Your task to perform on an android device: turn notification dots off Image 0: 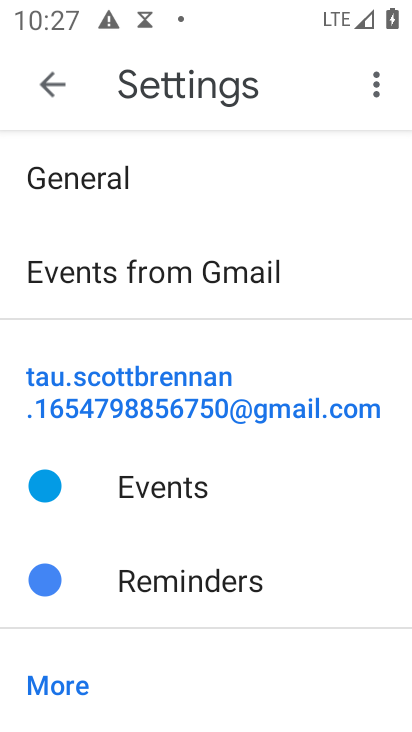
Step 0: press home button
Your task to perform on an android device: turn notification dots off Image 1: 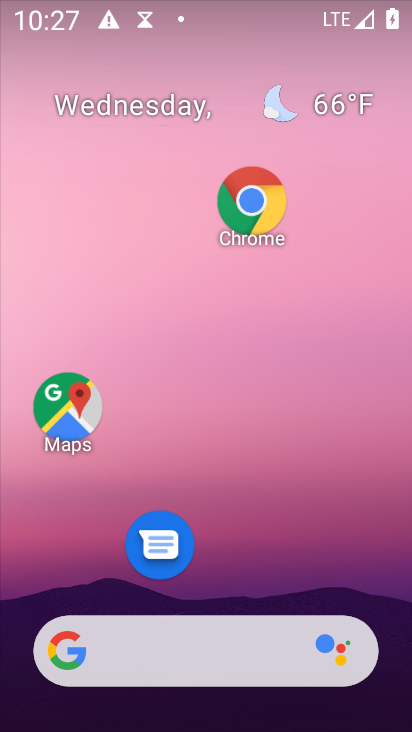
Step 1: drag from (262, 556) to (206, 241)
Your task to perform on an android device: turn notification dots off Image 2: 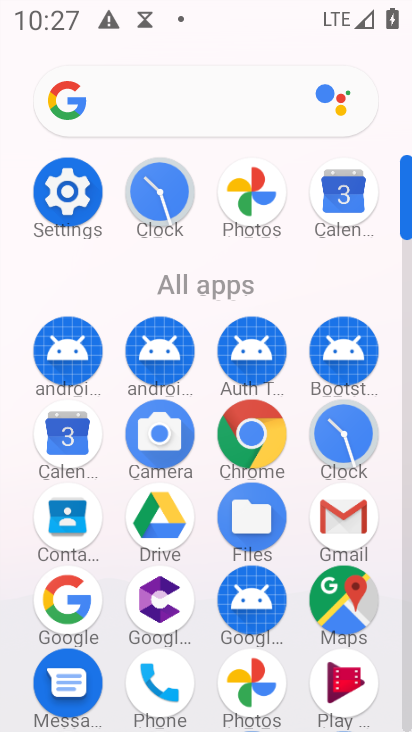
Step 2: click (77, 217)
Your task to perform on an android device: turn notification dots off Image 3: 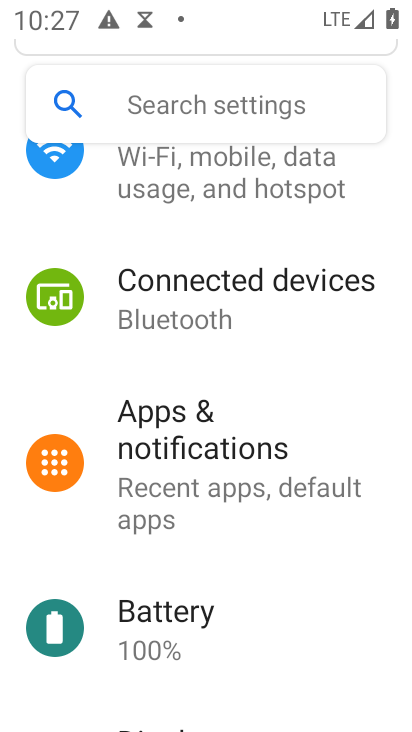
Step 3: click (213, 426)
Your task to perform on an android device: turn notification dots off Image 4: 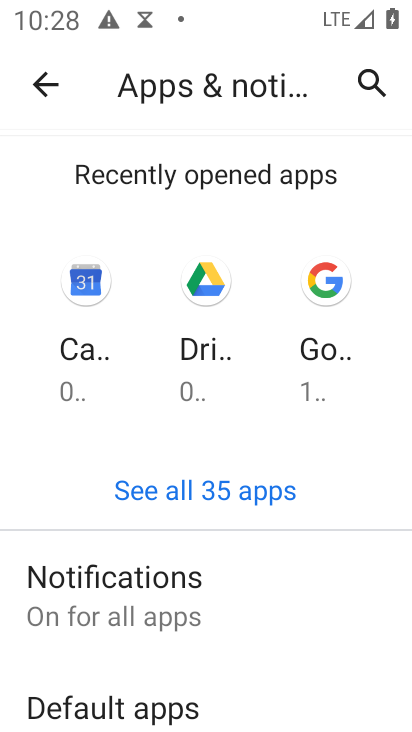
Step 4: click (220, 608)
Your task to perform on an android device: turn notification dots off Image 5: 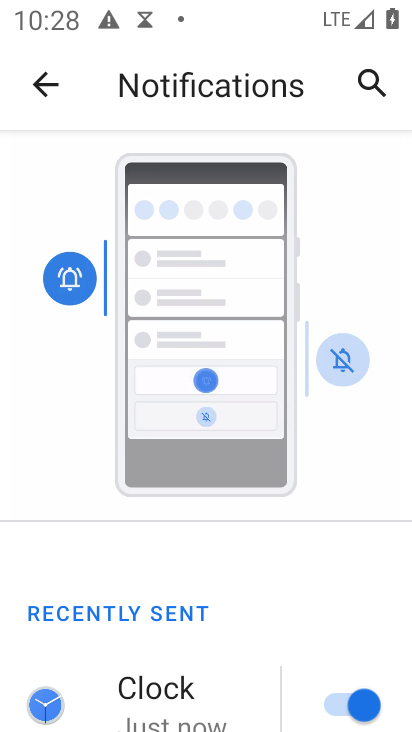
Step 5: drag from (211, 664) to (211, 331)
Your task to perform on an android device: turn notification dots off Image 6: 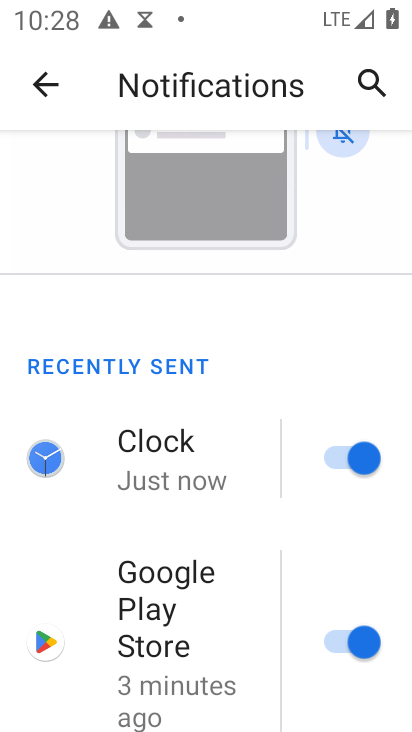
Step 6: drag from (207, 668) to (207, 369)
Your task to perform on an android device: turn notification dots off Image 7: 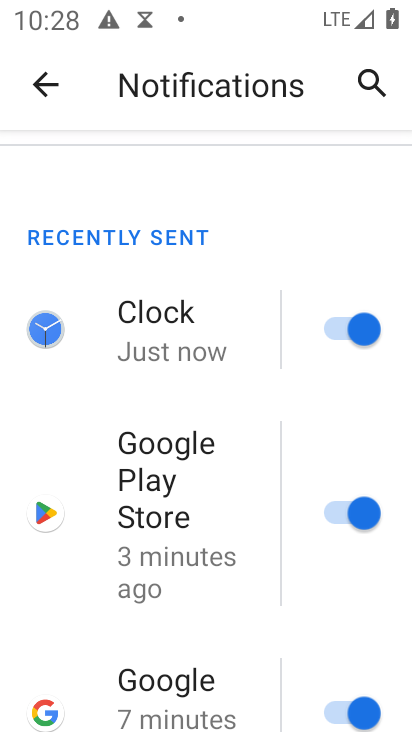
Step 7: drag from (181, 627) to (181, 231)
Your task to perform on an android device: turn notification dots off Image 8: 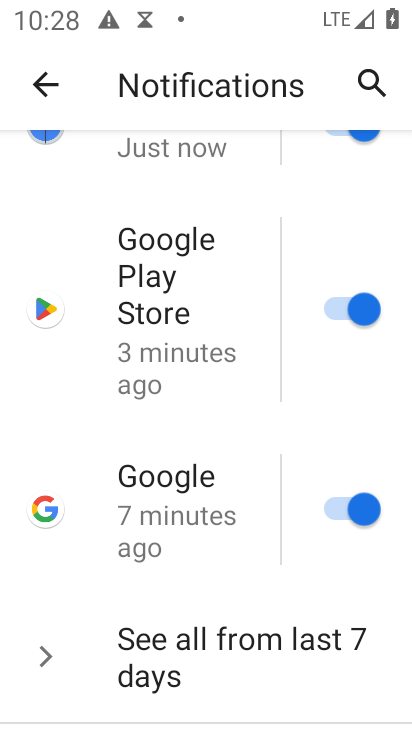
Step 8: drag from (147, 656) to (147, 359)
Your task to perform on an android device: turn notification dots off Image 9: 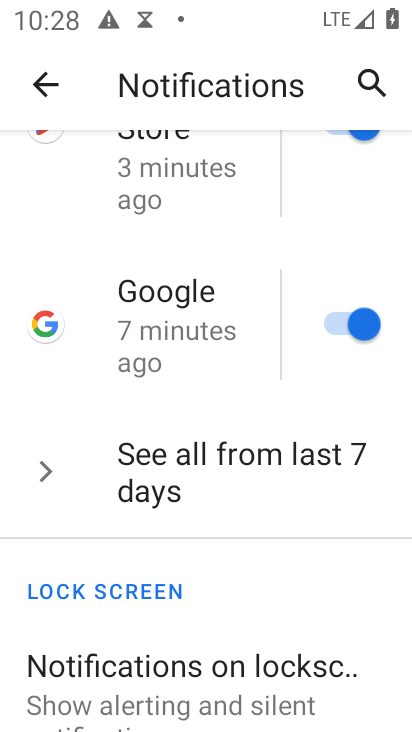
Step 9: drag from (143, 583) to (143, 147)
Your task to perform on an android device: turn notification dots off Image 10: 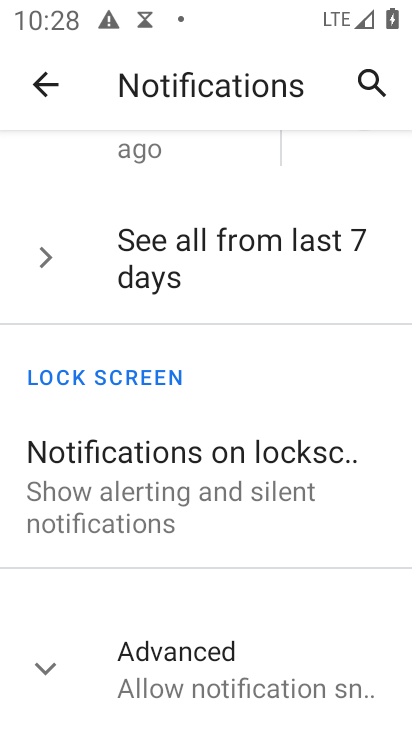
Step 10: click (221, 677)
Your task to perform on an android device: turn notification dots off Image 11: 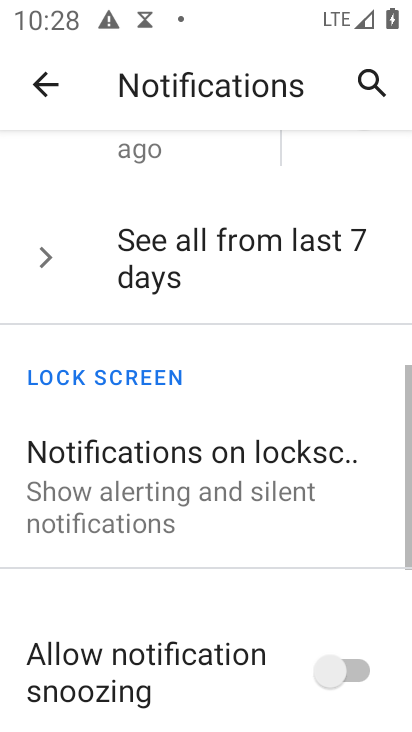
Step 11: task complete